Your task to perform on an android device: Open calendar and show me the second week of next month Image 0: 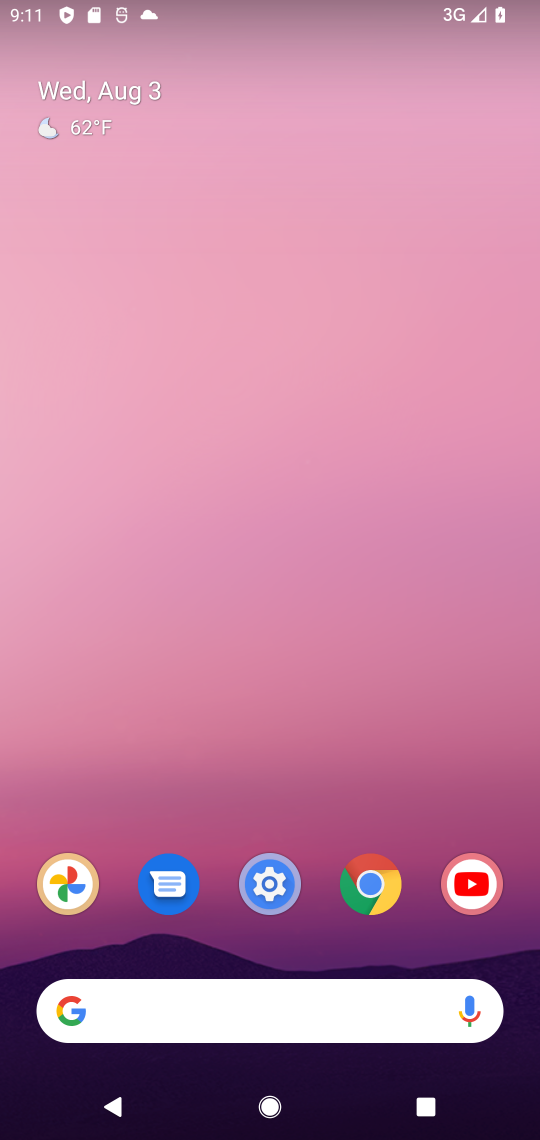
Step 0: drag from (241, 940) to (375, 409)
Your task to perform on an android device: Open calendar and show me the second week of next month Image 1: 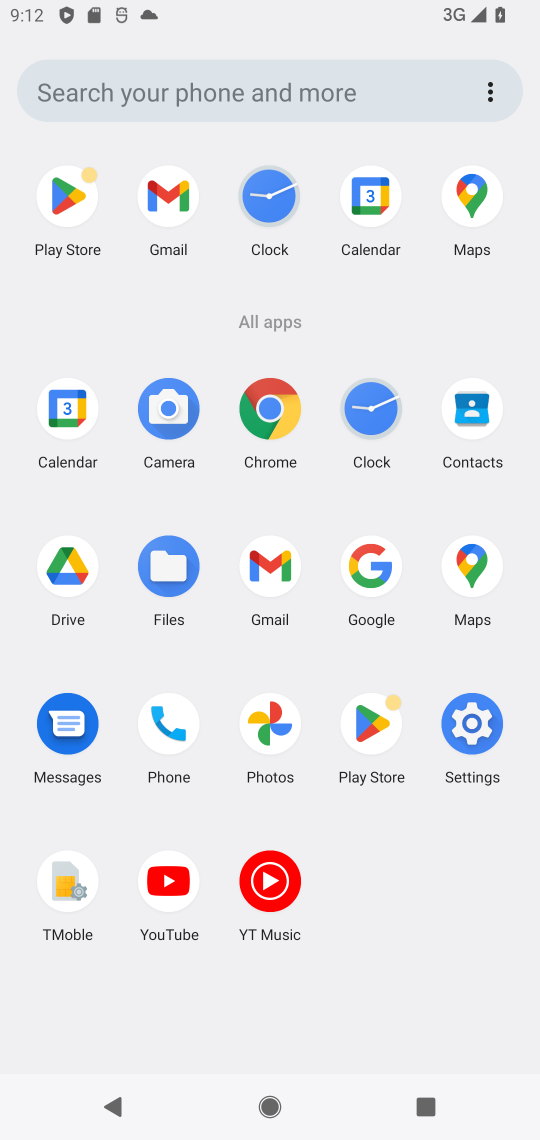
Step 1: click (361, 187)
Your task to perform on an android device: Open calendar and show me the second week of next month Image 2: 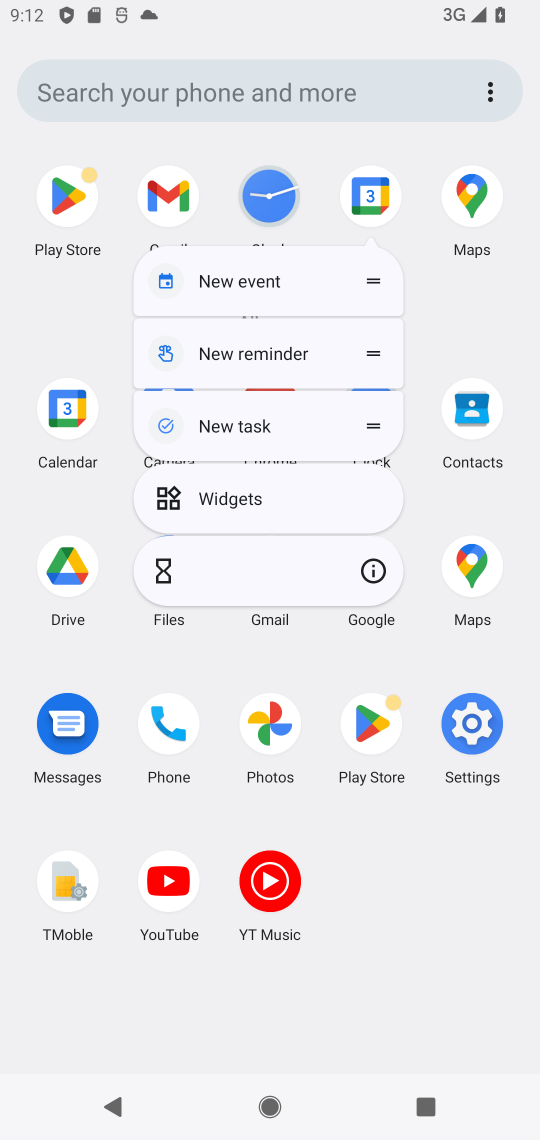
Step 2: click (358, 566)
Your task to perform on an android device: Open calendar and show me the second week of next month Image 3: 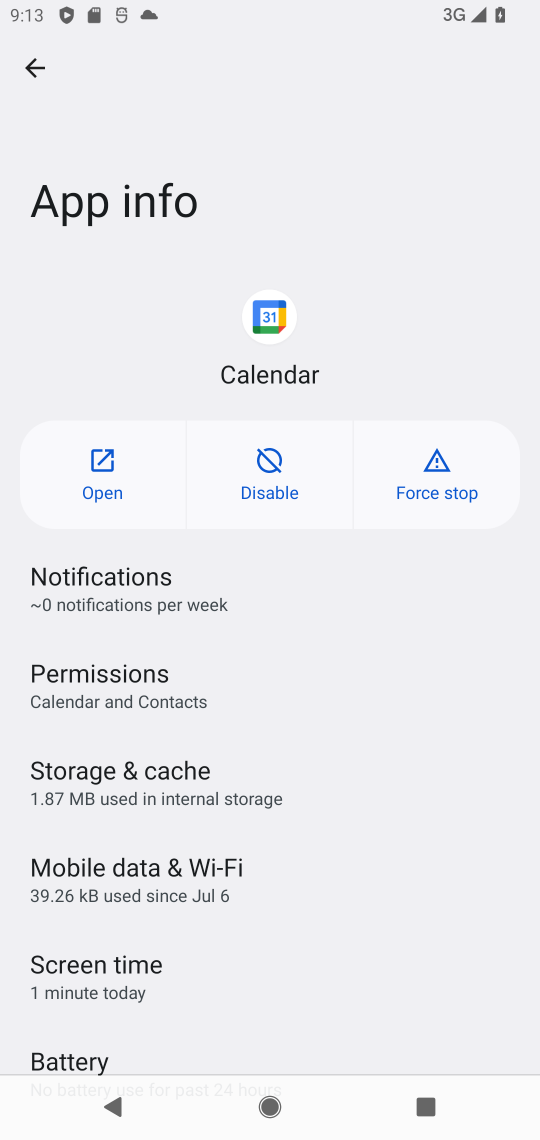
Step 3: click (89, 454)
Your task to perform on an android device: Open calendar and show me the second week of next month Image 4: 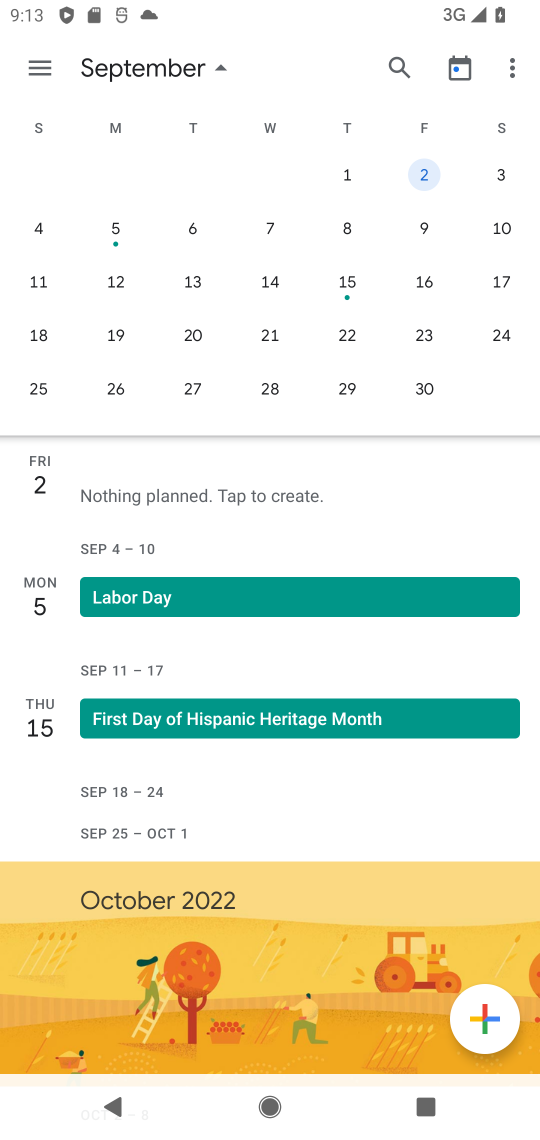
Step 4: drag from (286, 699) to (386, 218)
Your task to perform on an android device: Open calendar and show me the second week of next month Image 5: 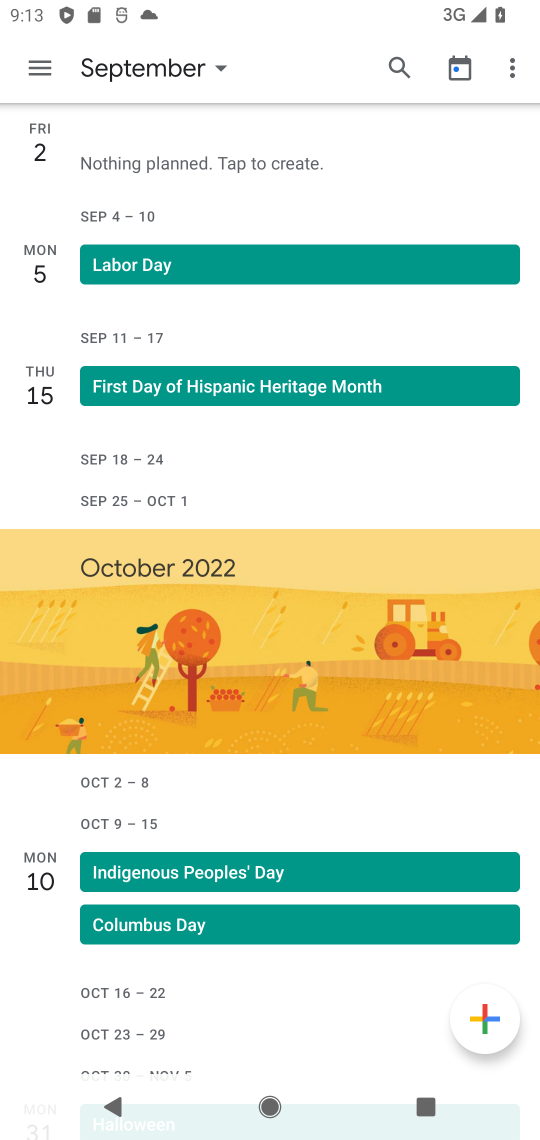
Step 5: drag from (316, 804) to (313, 202)
Your task to perform on an android device: Open calendar and show me the second week of next month Image 6: 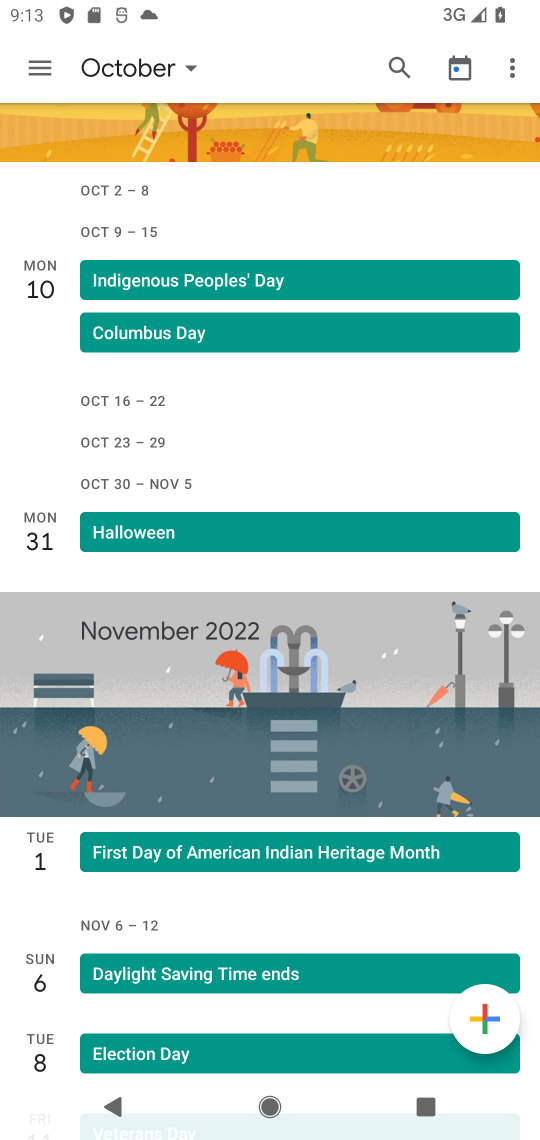
Step 6: drag from (302, 690) to (356, 947)
Your task to perform on an android device: Open calendar and show me the second week of next month Image 7: 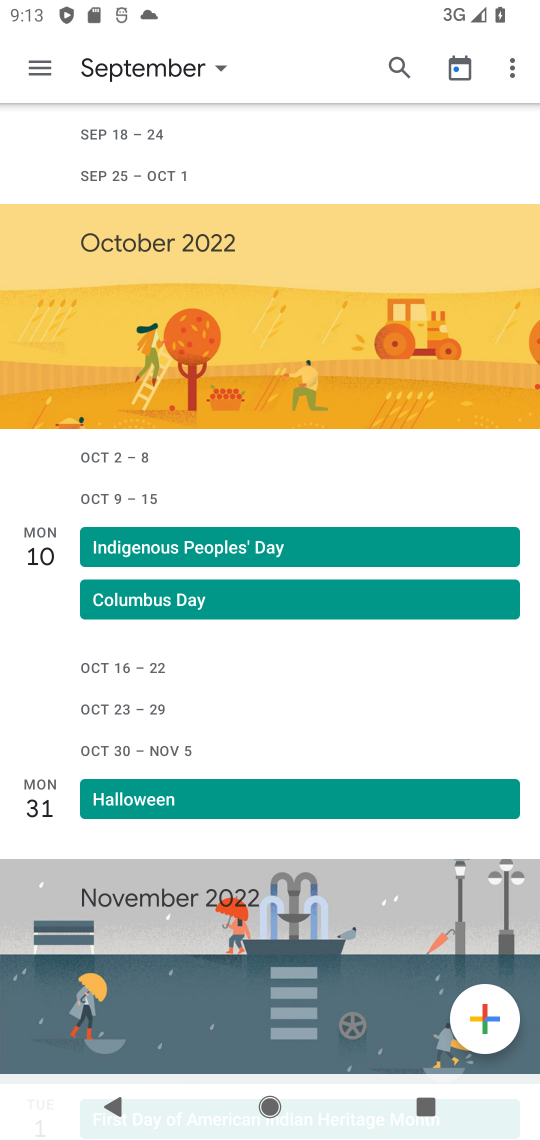
Step 7: click (141, 77)
Your task to perform on an android device: Open calendar and show me the second week of next month Image 8: 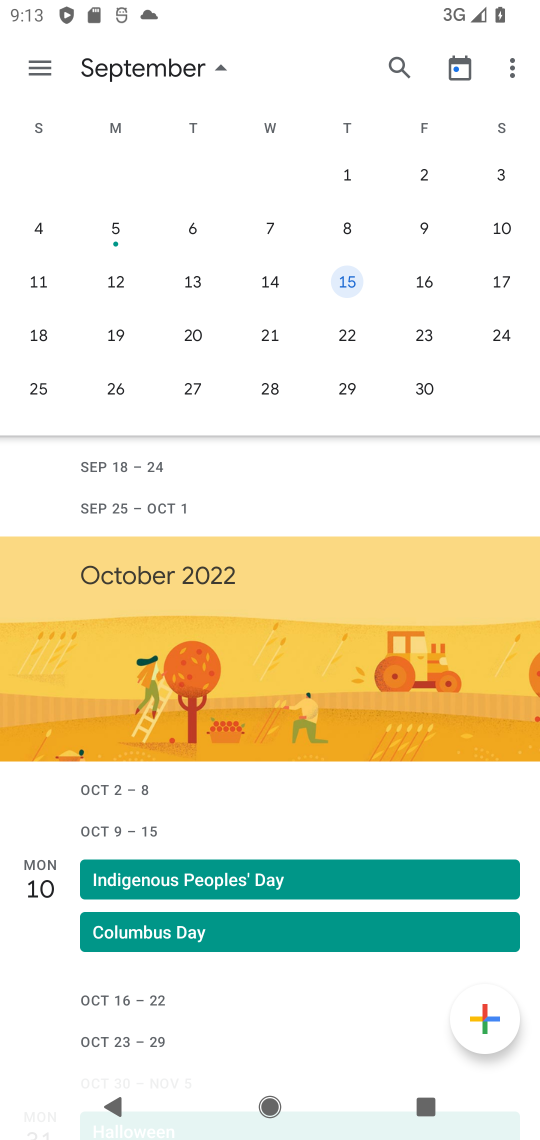
Step 8: click (347, 280)
Your task to perform on an android device: Open calendar and show me the second week of next month Image 9: 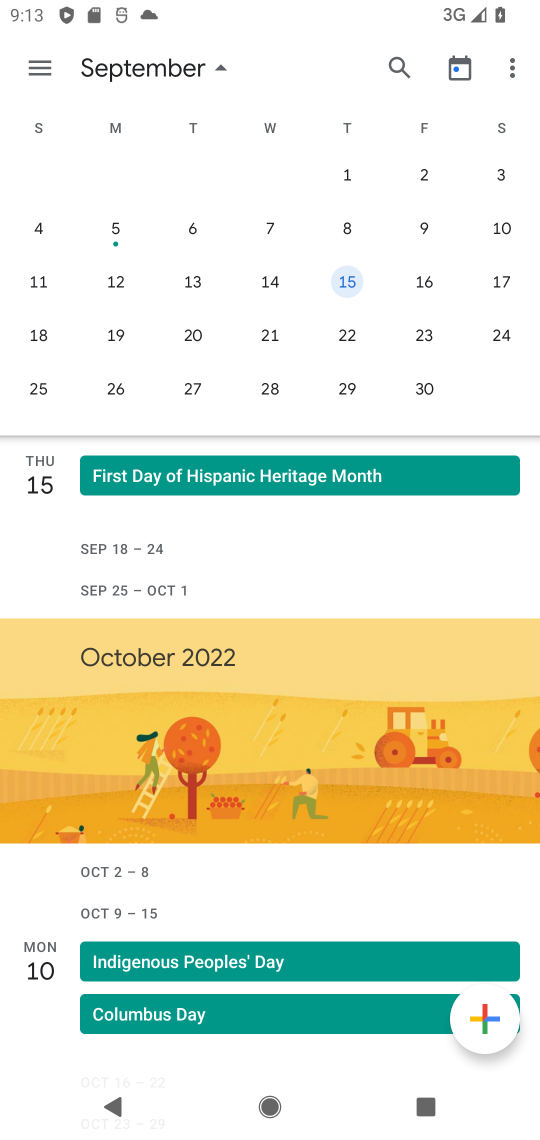
Step 9: task complete